Your task to perform on an android device: change the clock style Image 0: 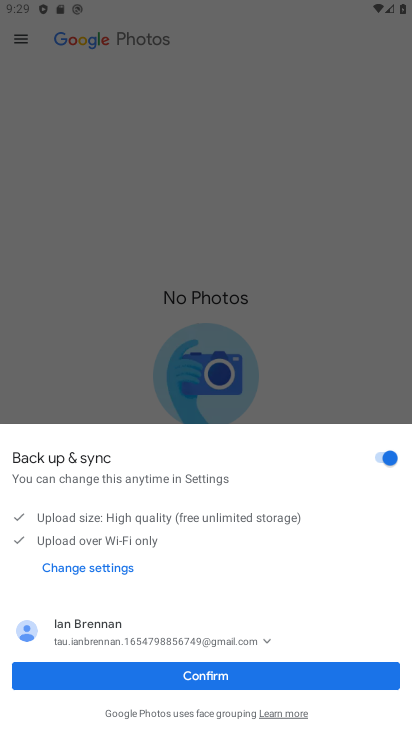
Step 0: press home button
Your task to perform on an android device: change the clock style Image 1: 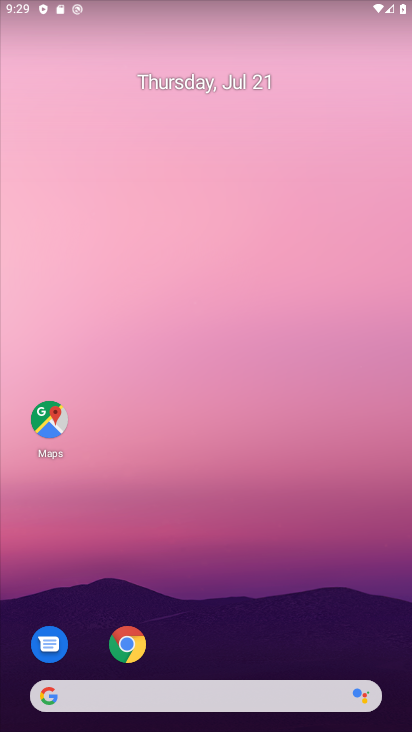
Step 1: drag from (275, 640) to (228, 29)
Your task to perform on an android device: change the clock style Image 2: 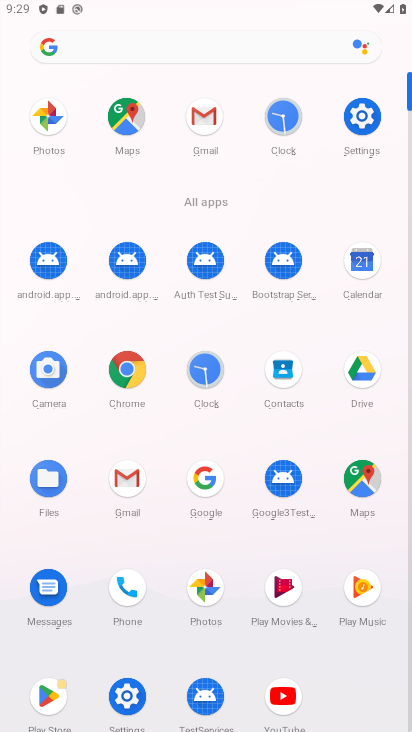
Step 2: click (286, 153)
Your task to perform on an android device: change the clock style Image 3: 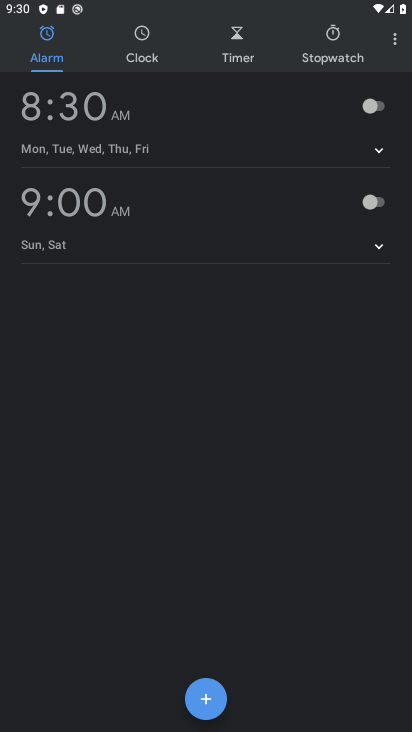
Step 3: click (343, 123)
Your task to perform on an android device: change the clock style Image 4: 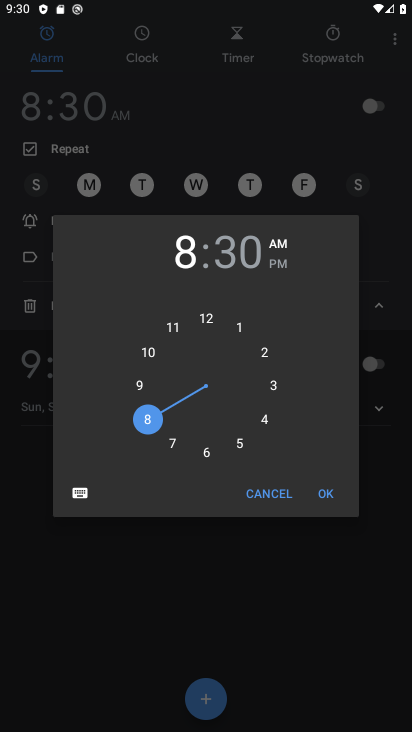
Step 4: task complete